Your task to perform on an android device: open app "McDonald's" (install if not already installed) and enter user name: "copes@yahoo.com" and password: "Rhenish" Image 0: 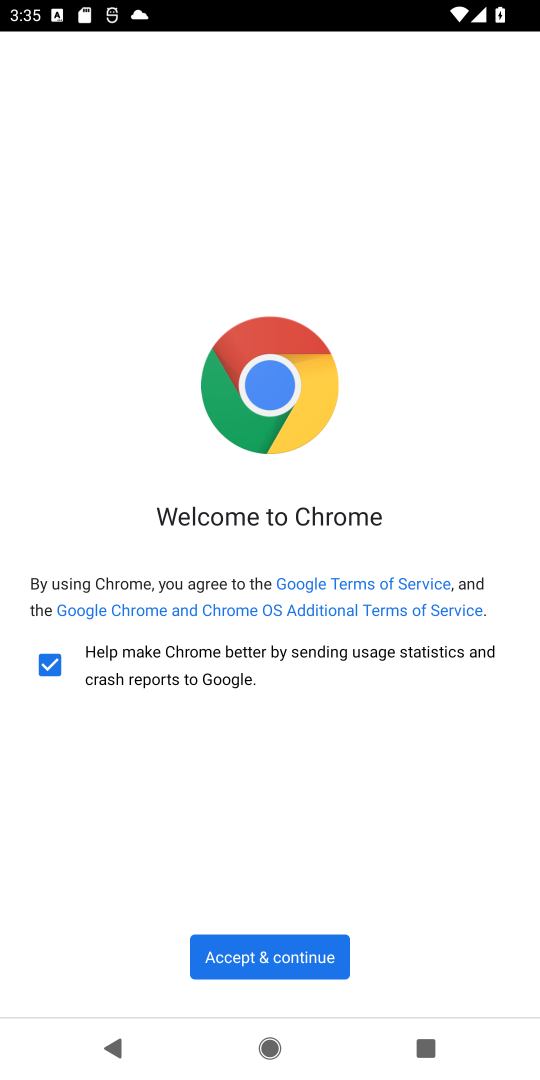
Step 0: press home button
Your task to perform on an android device: open app "McDonald's" (install if not already installed) and enter user name: "copes@yahoo.com" and password: "Rhenish" Image 1: 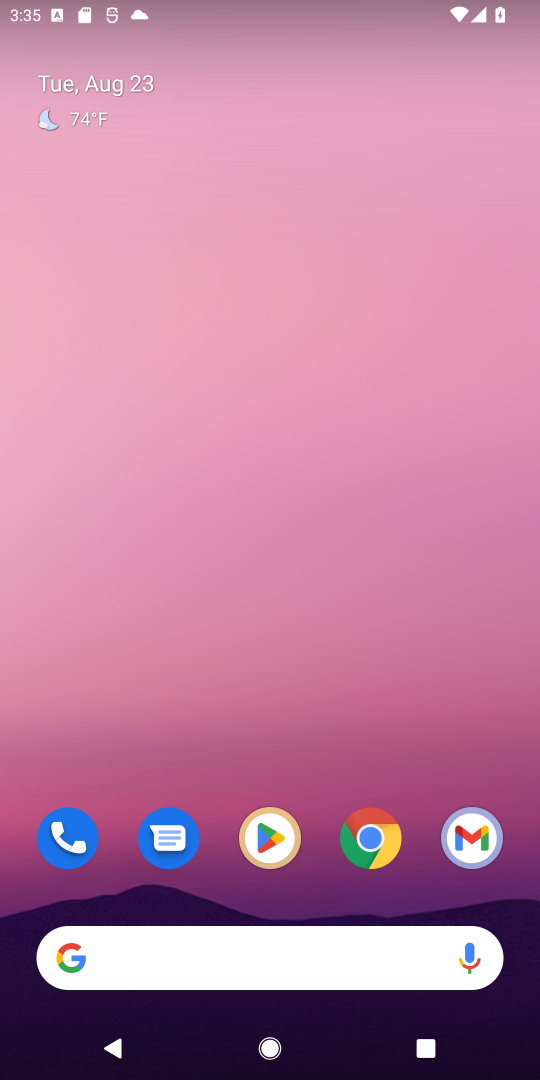
Step 1: click (278, 859)
Your task to perform on an android device: open app "McDonald's" (install if not already installed) and enter user name: "copes@yahoo.com" and password: "Rhenish" Image 2: 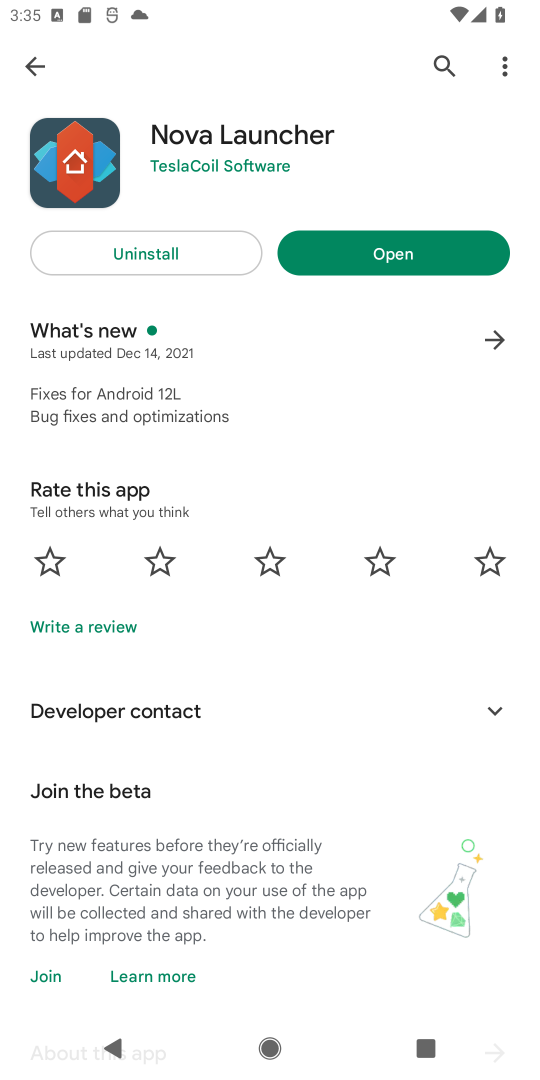
Step 2: click (14, 68)
Your task to perform on an android device: open app "McDonald's" (install if not already installed) and enter user name: "copes@yahoo.com" and password: "Rhenish" Image 3: 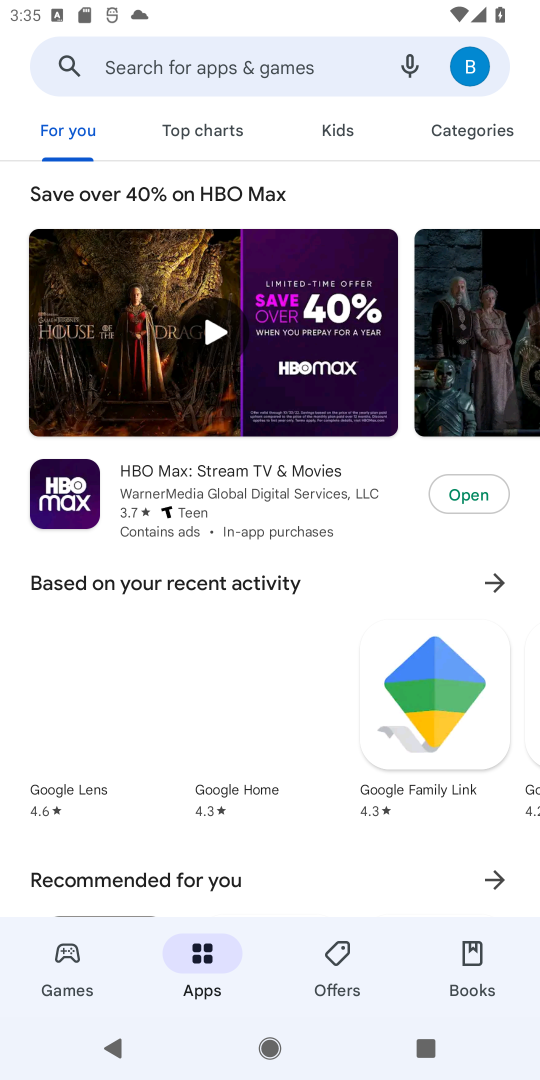
Step 3: click (199, 75)
Your task to perform on an android device: open app "McDonald's" (install if not already installed) and enter user name: "copes@yahoo.com" and password: "Rhenish" Image 4: 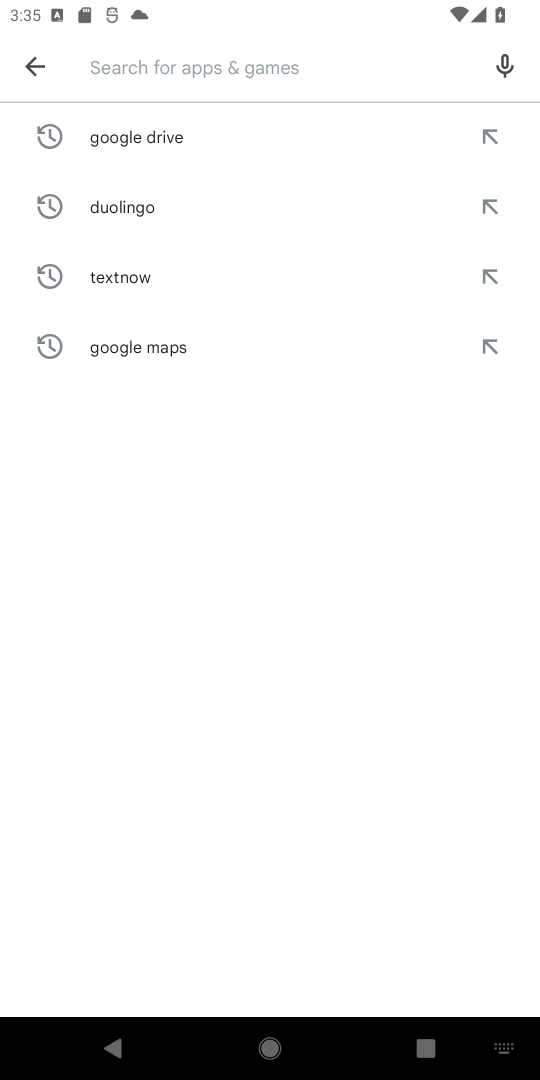
Step 4: type "McDonald's"
Your task to perform on an android device: open app "McDonald's" (install if not already installed) and enter user name: "copes@yahoo.com" and password: "Rhenish" Image 5: 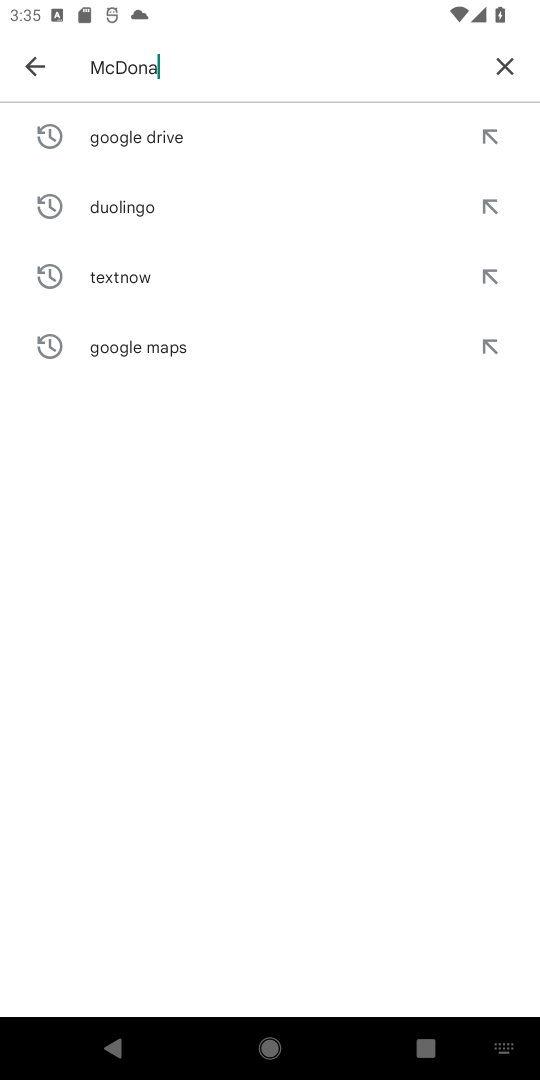
Step 5: type ""
Your task to perform on an android device: open app "McDonald's" (install if not already installed) and enter user name: "copes@yahoo.com" and password: "Rhenish" Image 6: 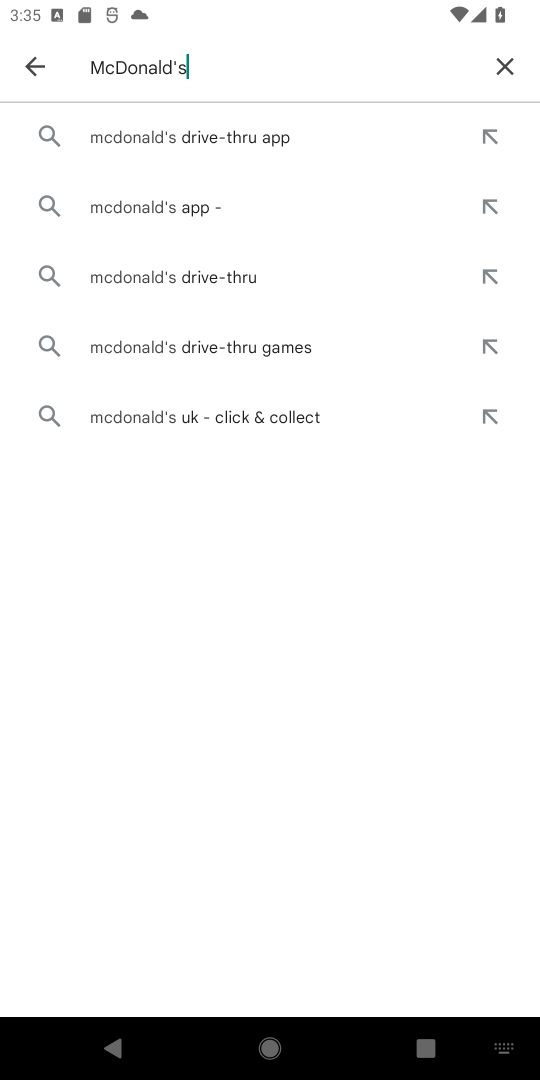
Step 6: click (154, 227)
Your task to perform on an android device: open app "McDonald's" (install if not already installed) and enter user name: "copes@yahoo.com" and password: "Rhenish" Image 7: 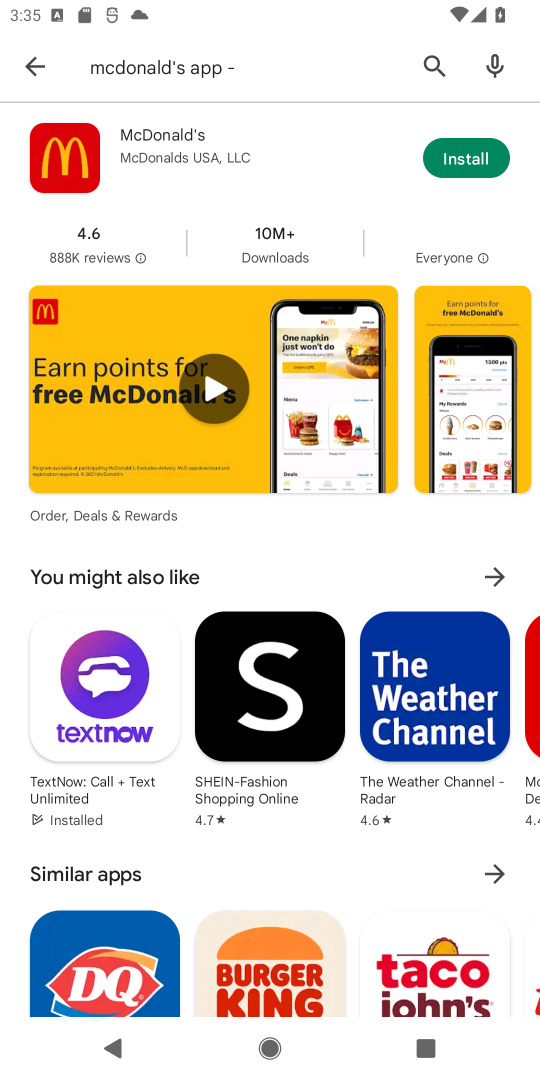
Step 7: click (487, 159)
Your task to perform on an android device: open app "McDonald's" (install if not already installed) and enter user name: "copes@yahoo.com" and password: "Rhenish" Image 8: 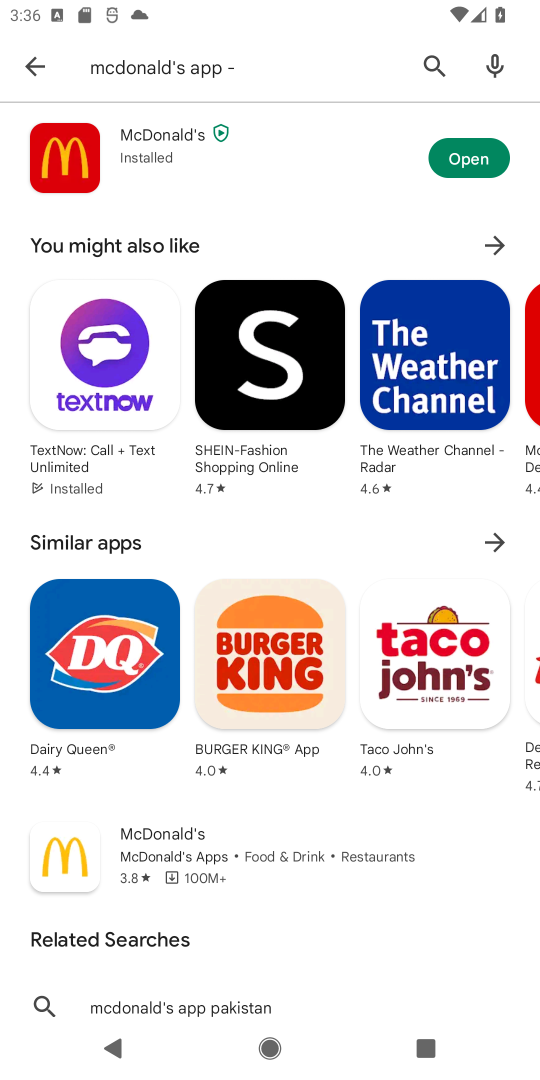
Step 8: click (498, 145)
Your task to perform on an android device: open app "McDonald's" (install if not already installed) and enter user name: "copes@yahoo.com" and password: "Rhenish" Image 9: 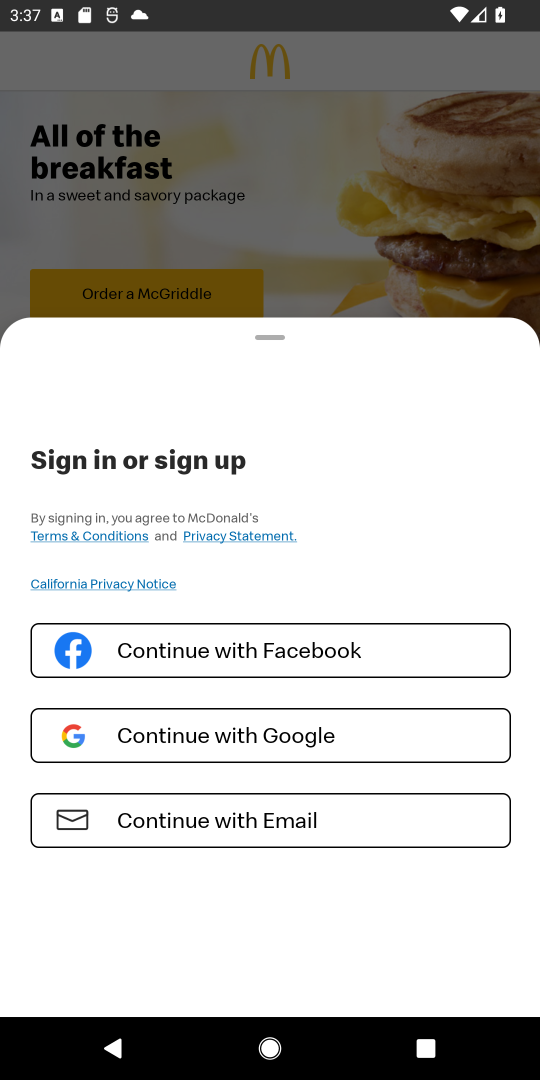
Step 9: task complete